Your task to perform on an android device: Open settings Image 0: 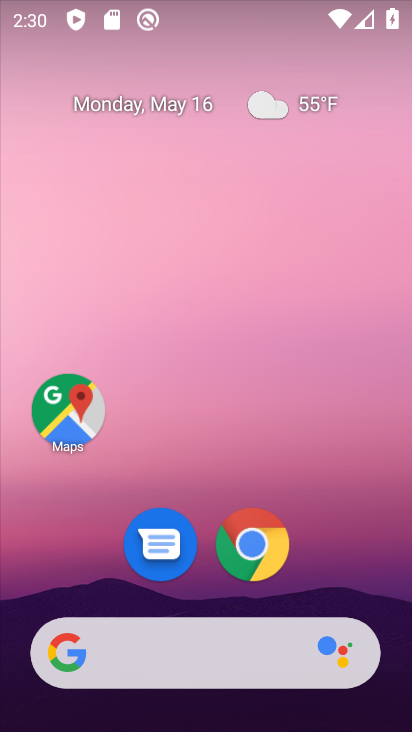
Step 0: drag from (377, 508) to (366, 74)
Your task to perform on an android device: Open settings Image 1: 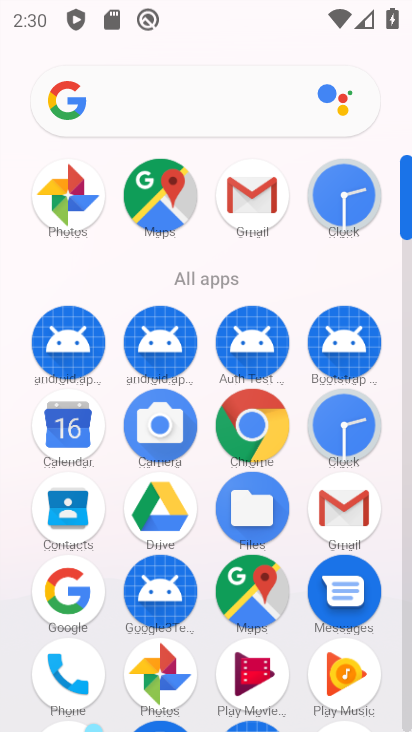
Step 1: drag from (395, 574) to (357, 168)
Your task to perform on an android device: Open settings Image 2: 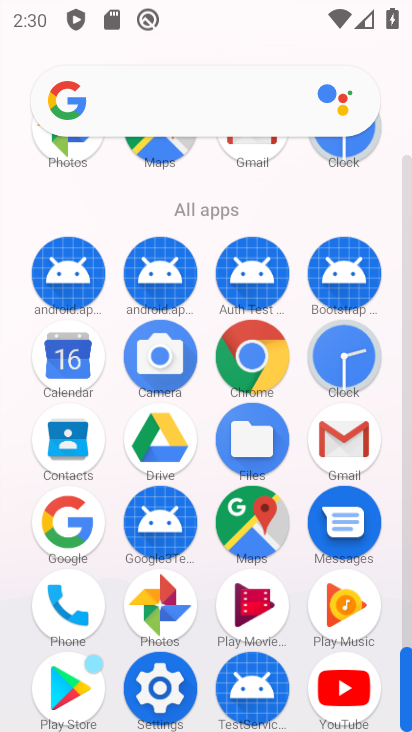
Step 2: click (170, 671)
Your task to perform on an android device: Open settings Image 3: 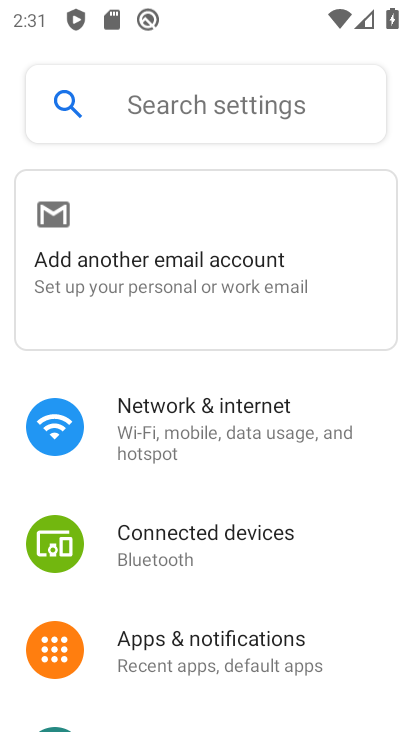
Step 3: task complete